Your task to perform on an android device: read, delete, or share a saved page in the chrome app Image 0: 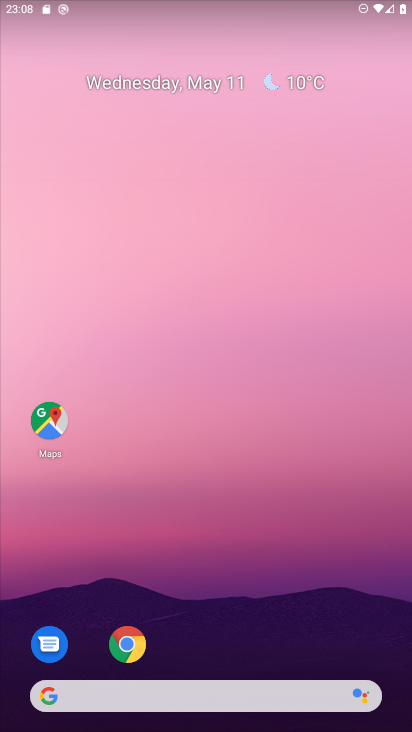
Step 0: click (137, 656)
Your task to perform on an android device: read, delete, or share a saved page in the chrome app Image 1: 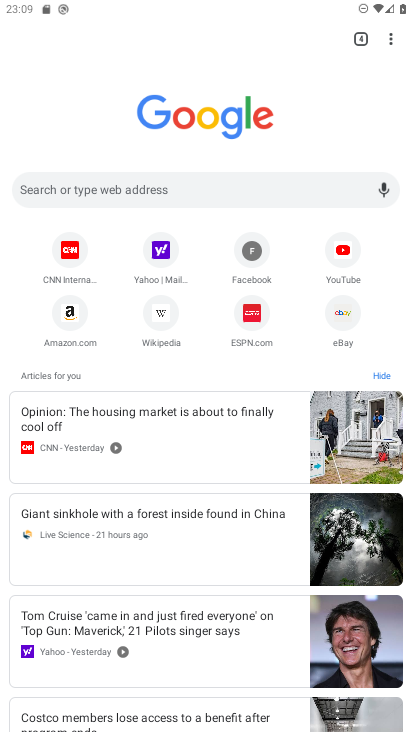
Step 1: click (392, 40)
Your task to perform on an android device: read, delete, or share a saved page in the chrome app Image 2: 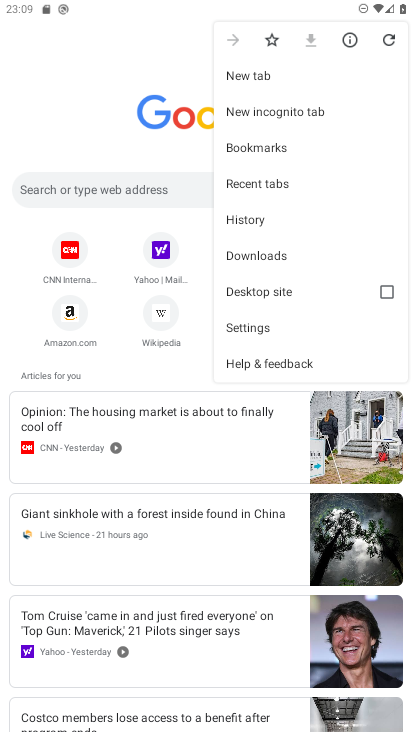
Step 2: click (250, 252)
Your task to perform on an android device: read, delete, or share a saved page in the chrome app Image 3: 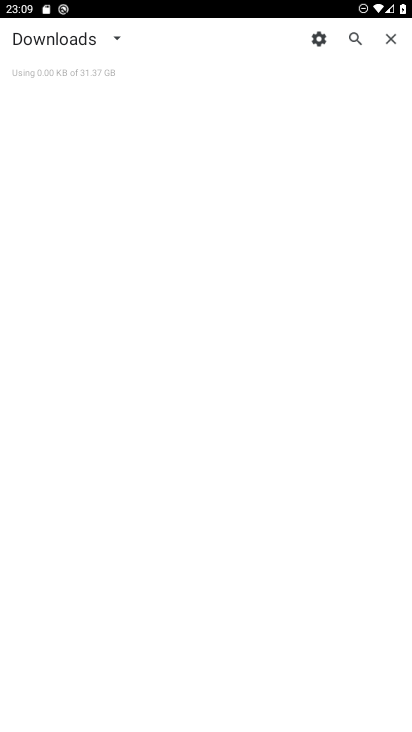
Step 3: click (113, 37)
Your task to perform on an android device: read, delete, or share a saved page in the chrome app Image 4: 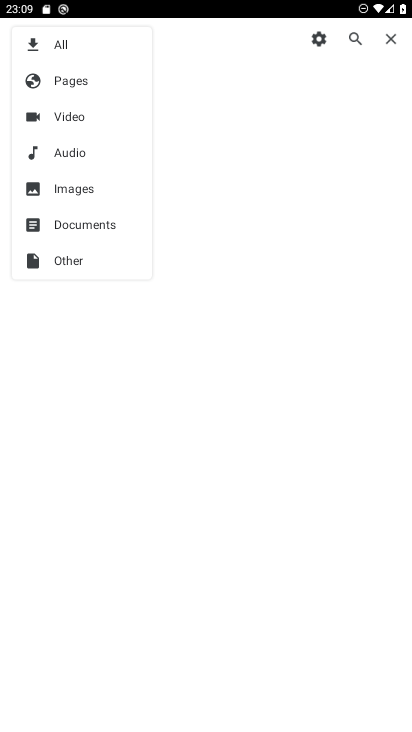
Step 4: click (82, 78)
Your task to perform on an android device: read, delete, or share a saved page in the chrome app Image 5: 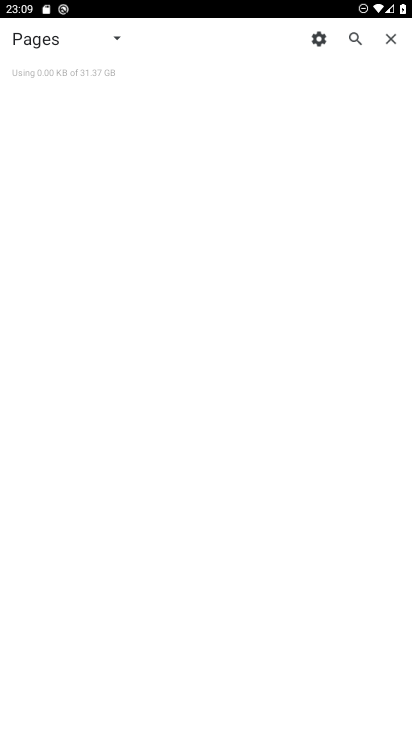
Step 5: task complete